Your task to perform on an android device: turn on wifi Image 0: 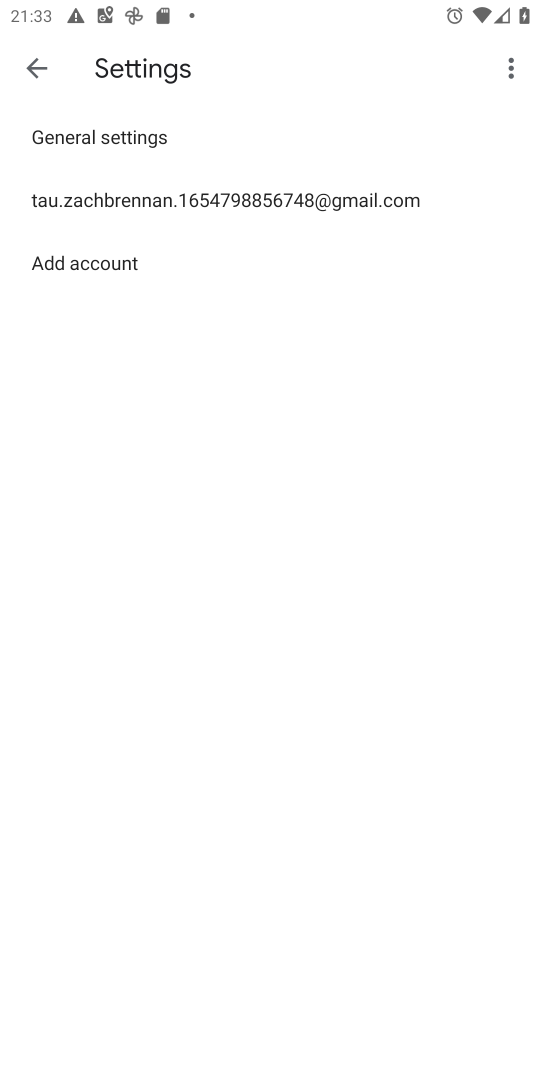
Step 0: press home button
Your task to perform on an android device: turn on wifi Image 1: 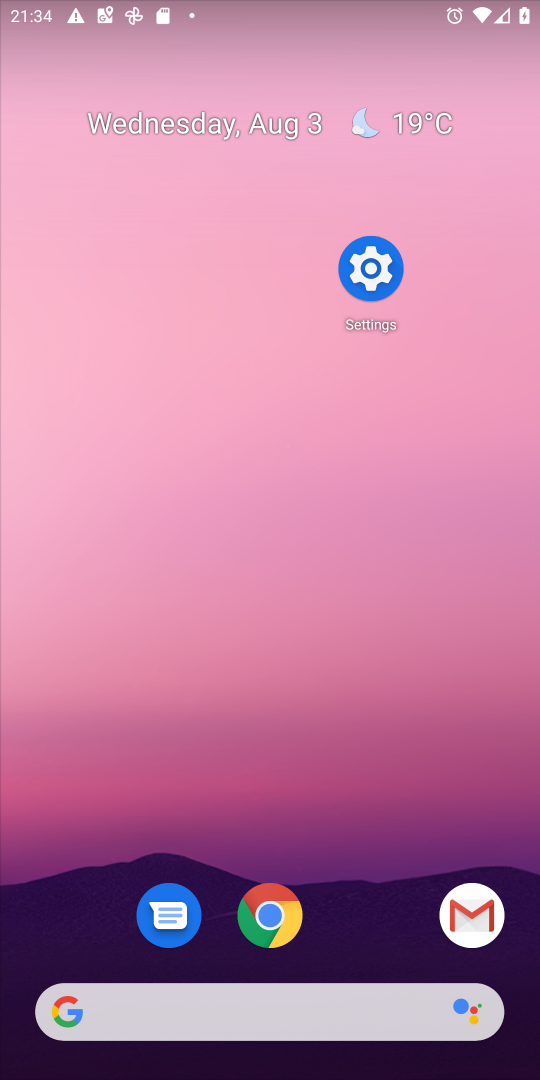
Step 1: drag from (251, 962) to (164, 327)
Your task to perform on an android device: turn on wifi Image 2: 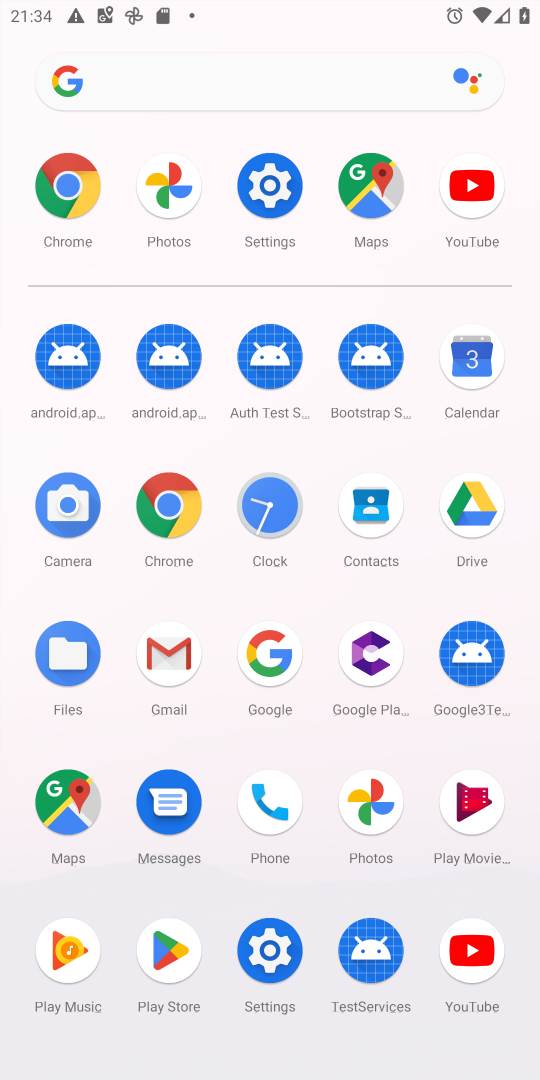
Step 2: click (254, 206)
Your task to perform on an android device: turn on wifi Image 3: 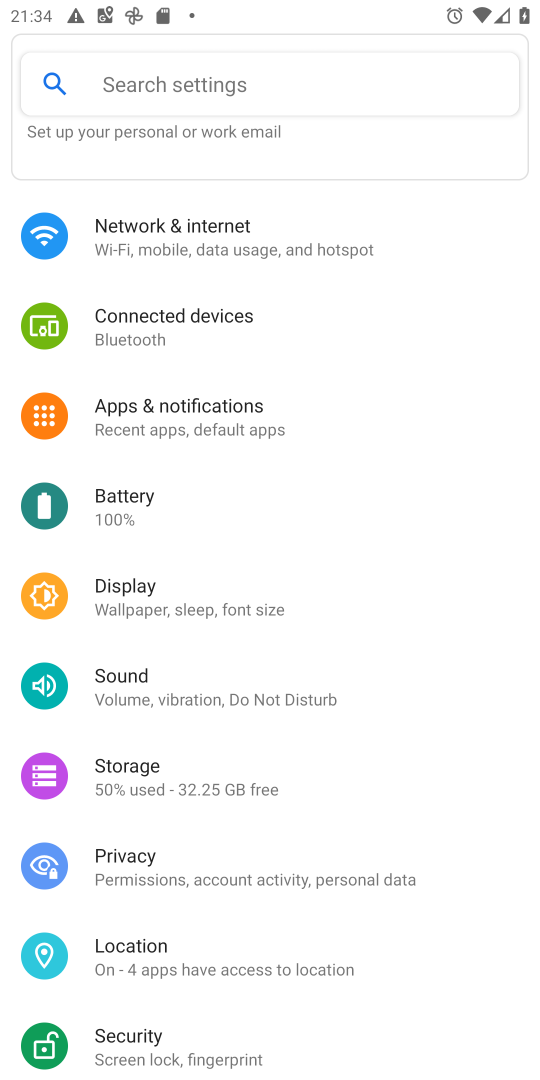
Step 3: click (234, 250)
Your task to perform on an android device: turn on wifi Image 4: 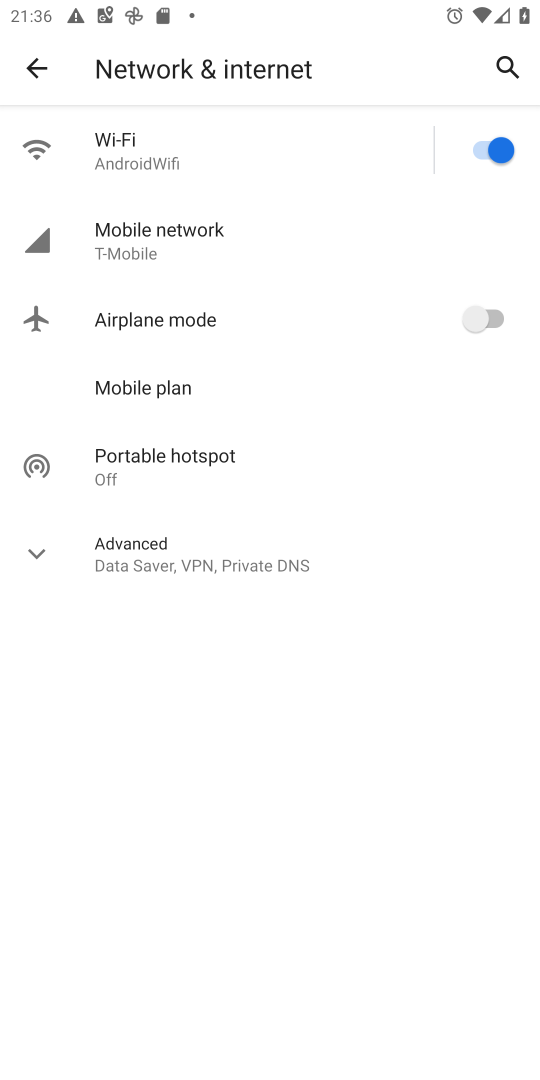
Step 4: task complete